Your task to perform on an android device: change notifications settings Image 0: 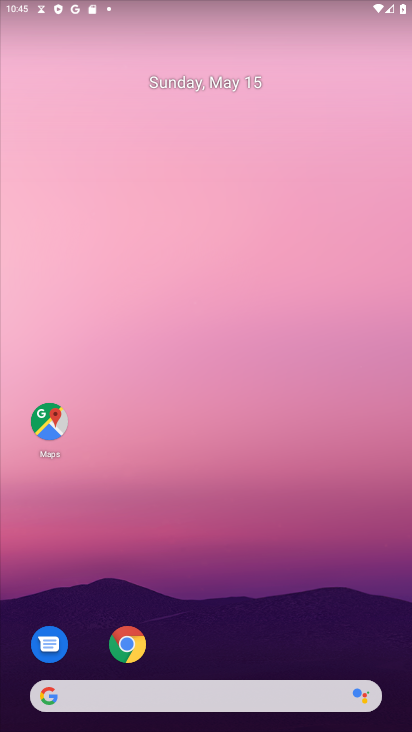
Step 0: drag from (214, 637) to (268, 77)
Your task to perform on an android device: change notifications settings Image 1: 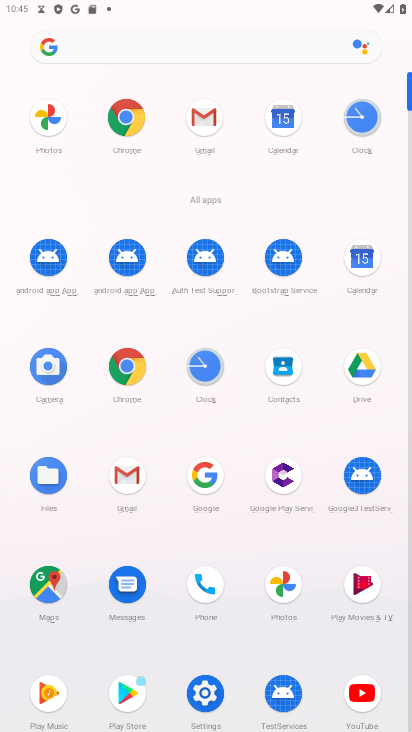
Step 1: click (133, 108)
Your task to perform on an android device: change notifications settings Image 2: 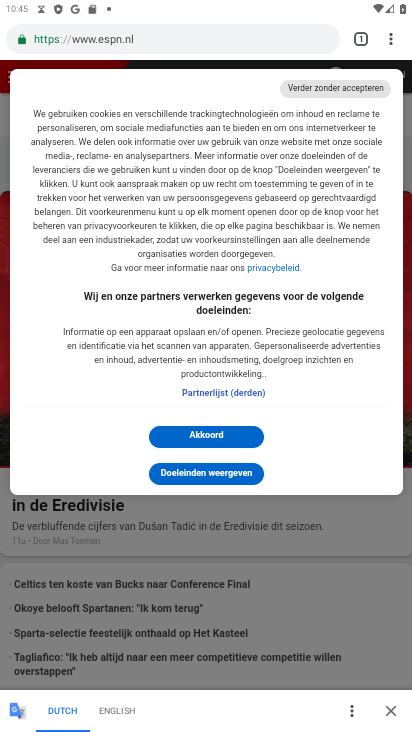
Step 2: click (388, 41)
Your task to perform on an android device: change notifications settings Image 3: 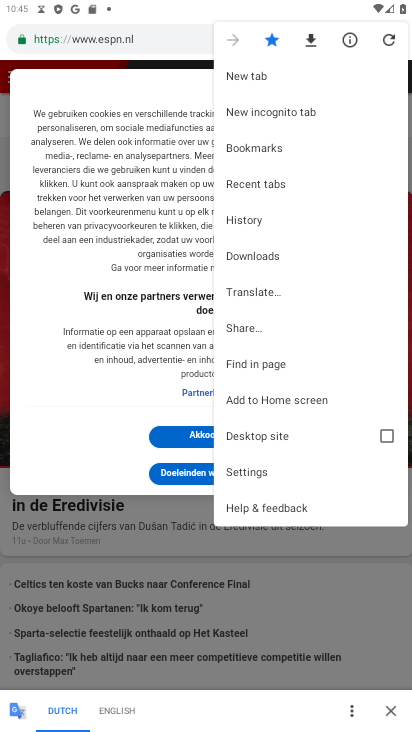
Step 3: press home button
Your task to perform on an android device: change notifications settings Image 4: 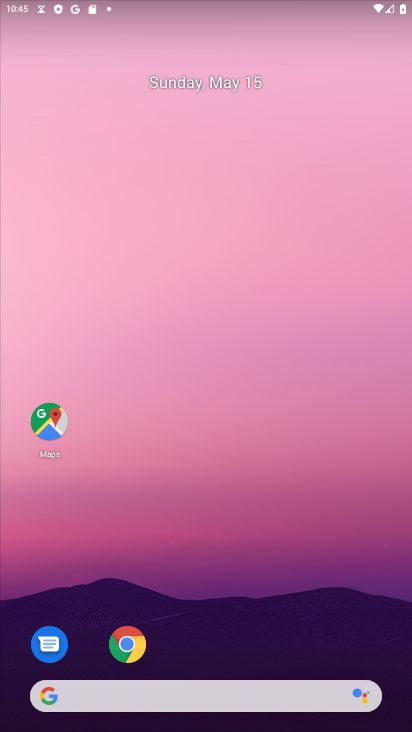
Step 4: drag from (215, 637) to (181, 198)
Your task to perform on an android device: change notifications settings Image 5: 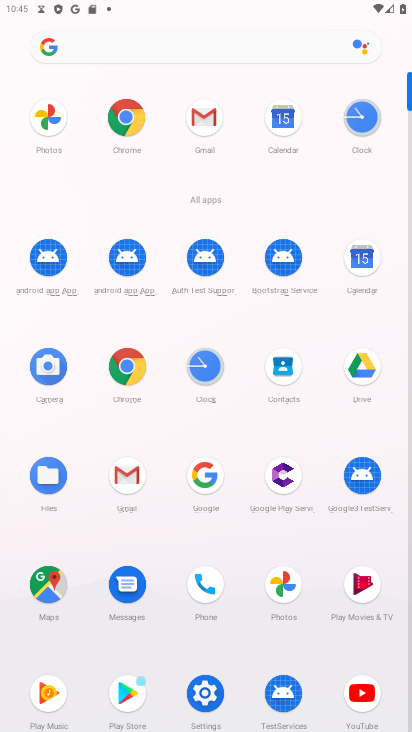
Step 5: click (183, 695)
Your task to perform on an android device: change notifications settings Image 6: 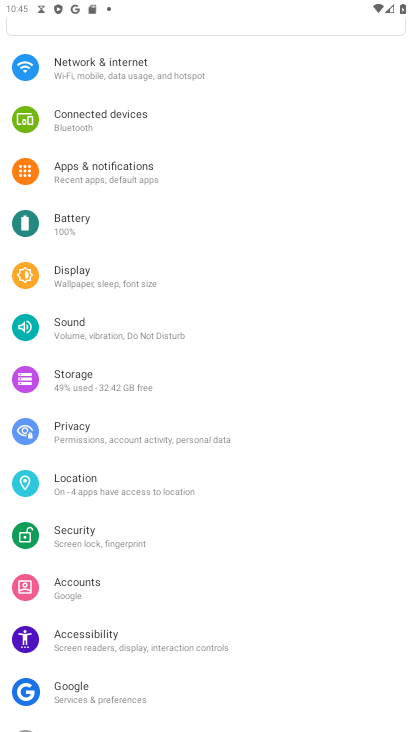
Step 6: click (183, 181)
Your task to perform on an android device: change notifications settings Image 7: 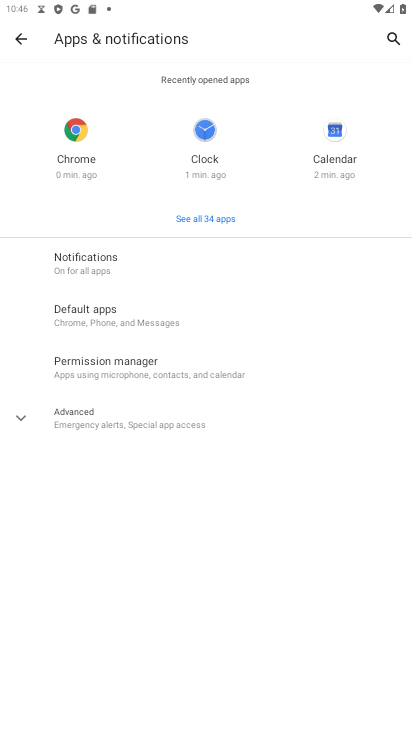
Step 7: click (168, 263)
Your task to perform on an android device: change notifications settings Image 8: 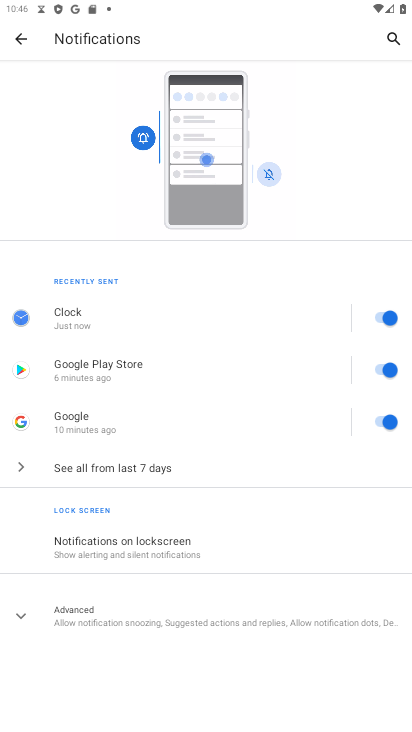
Step 8: click (140, 618)
Your task to perform on an android device: change notifications settings Image 9: 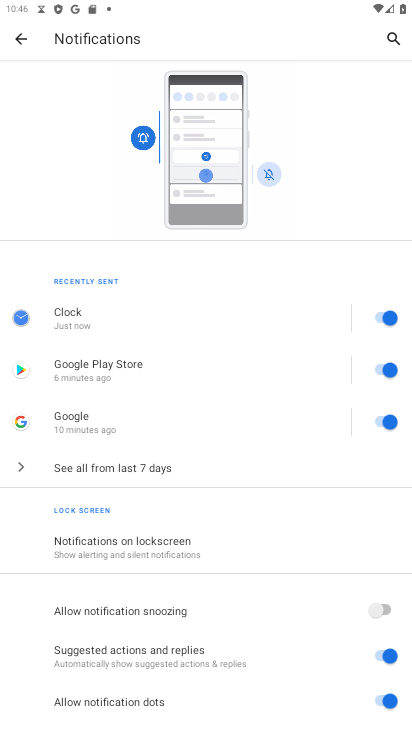
Step 9: drag from (240, 641) to (252, 374)
Your task to perform on an android device: change notifications settings Image 10: 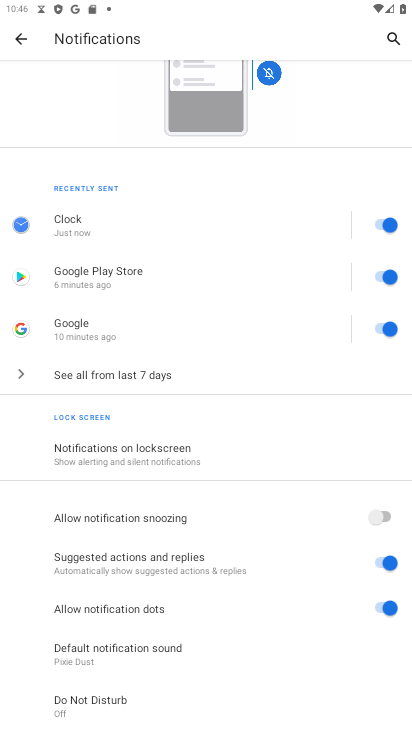
Step 10: click (387, 517)
Your task to perform on an android device: change notifications settings Image 11: 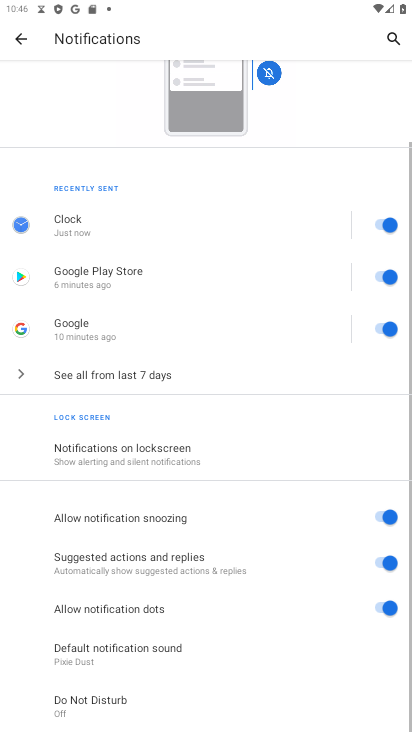
Step 11: click (382, 557)
Your task to perform on an android device: change notifications settings Image 12: 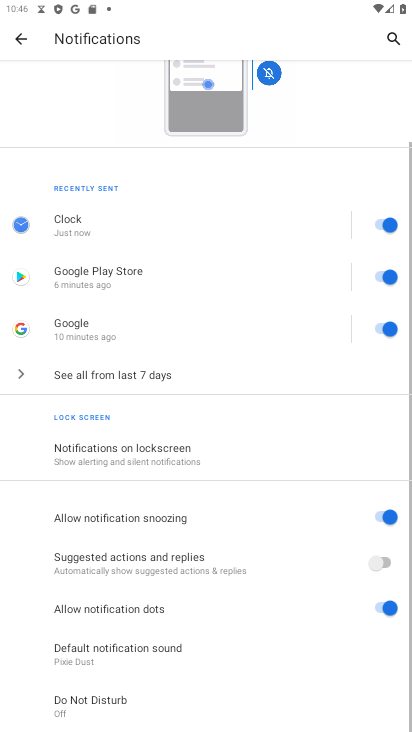
Step 12: click (381, 600)
Your task to perform on an android device: change notifications settings Image 13: 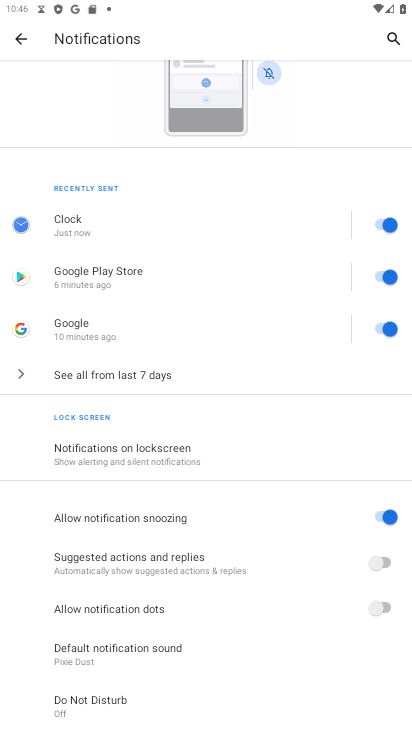
Step 13: task complete